Your task to perform on an android device: turn on translation in the chrome app Image 0: 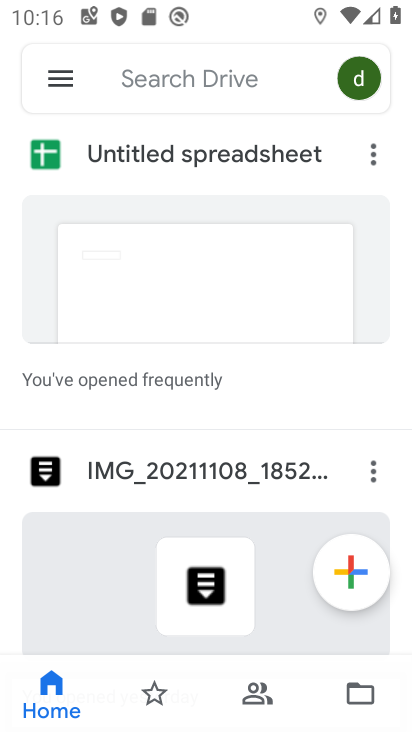
Step 0: press home button
Your task to perform on an android device: turn on translation in the chrome app Image 1: 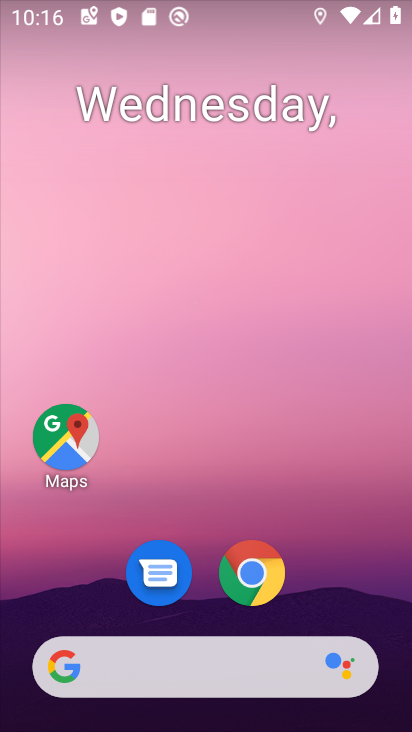
Step 1: click (73, 449)
Your task to perform on an android device: turn on translation in the chrome app Image 2: 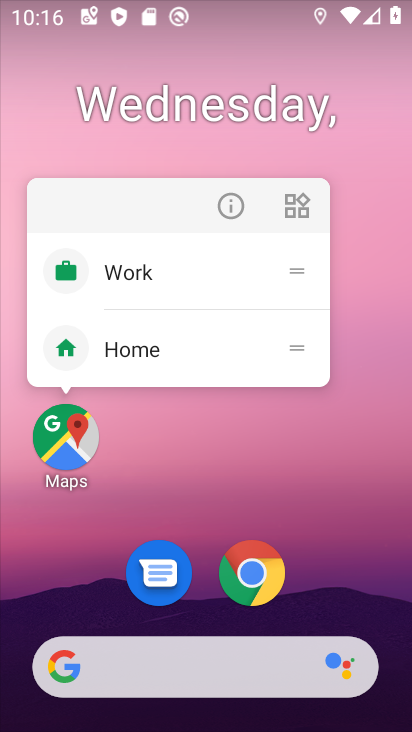
Step 2: click (242, 583)
Your task to perform on an android device: turn on translation in the chrome app Image 3: 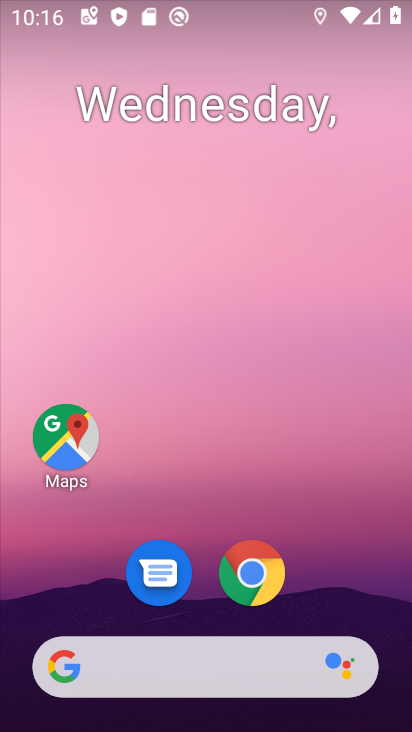
Step 3: click (248, 573)
Your task to perform on an android device: turn on translation in the chrome app Image 4: 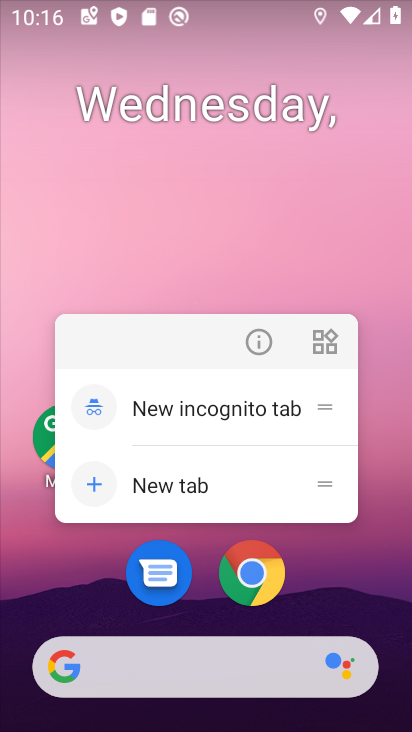
Step 4: click (253, 582)
Your task to perform on an android device: turn on translation in the chrome app Image 5: 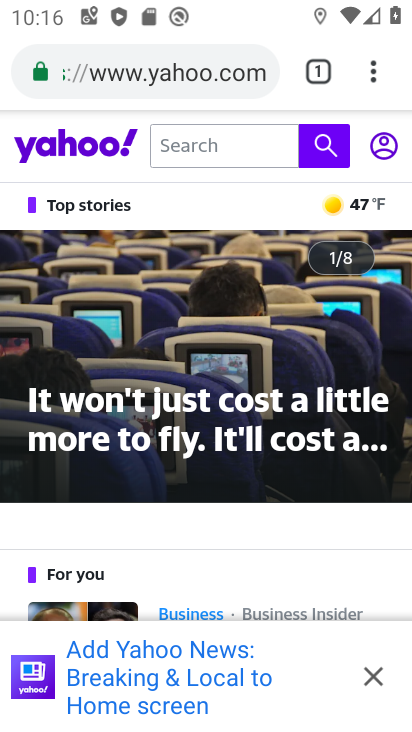
Step 5: click (373, 675)
Your task to perform on an android device: turn on translation in the chrome app Image 6: 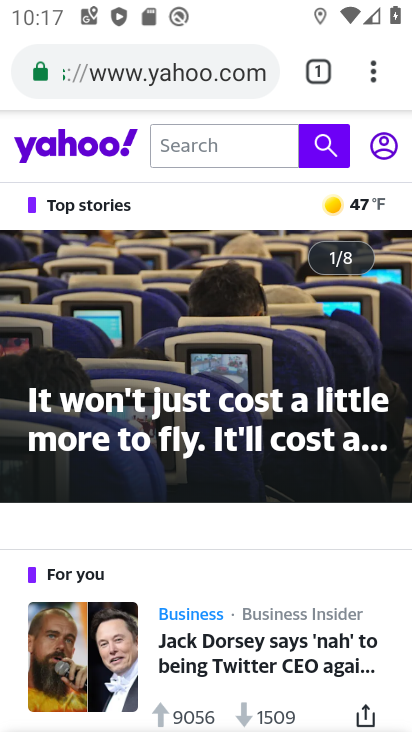
Step 6: click (372, 73)
Your task to perform on an android device: turn on translation in the chrome app Image 7: 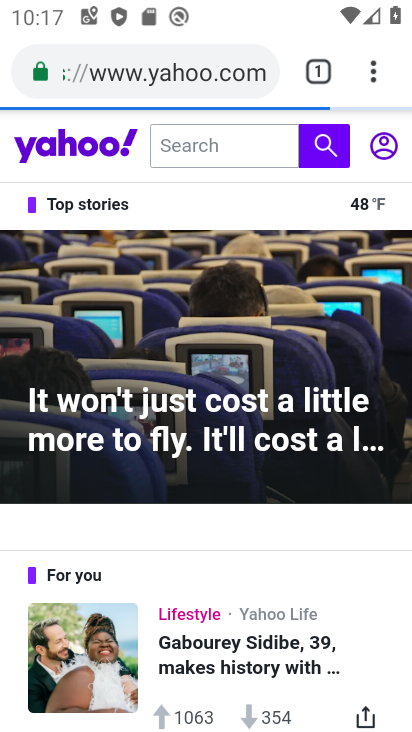
Step 7: click (371, 71)
Your task to perform on an android device: turn on translation in the chrome app Image 8: 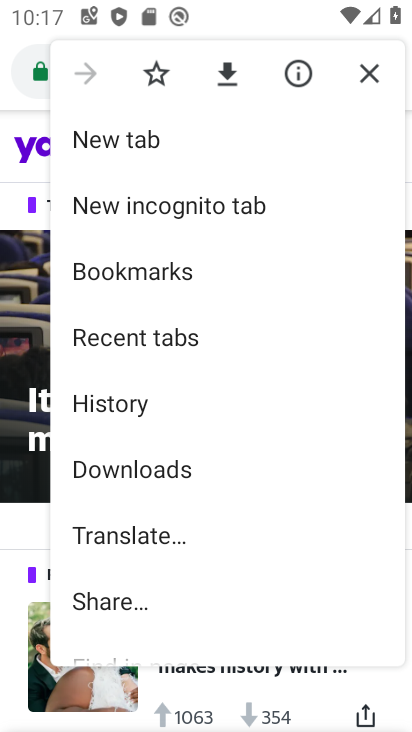
Step 8: drag from (188, 578) to (219, 154)
Your task to perform on an android device: turn on translation in the chrome app Image 9: 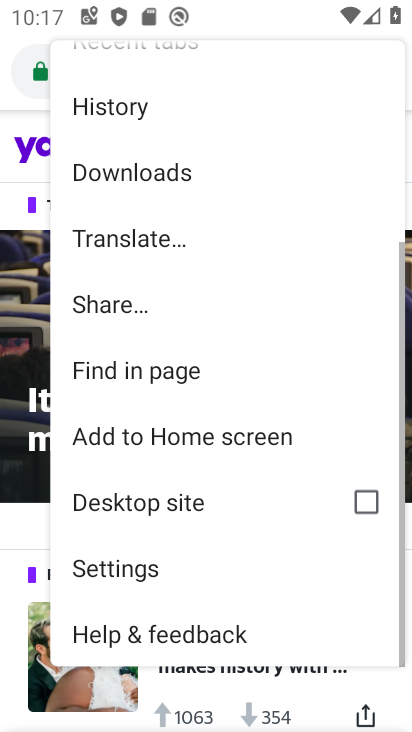
Step 9: click (125, 567)
Your task to perform on an android device: turn on translation in the chrome app Image 10: 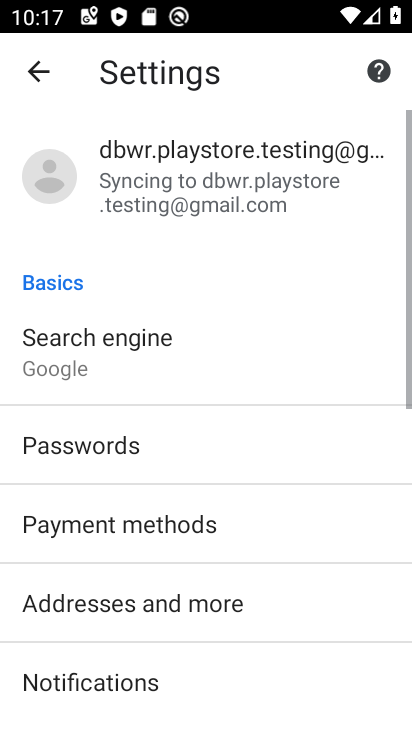
Step 10: drag from (170, 669) to (255, 231)
Your task to perform on an android device: turn on translation in the chrome app Image 11: 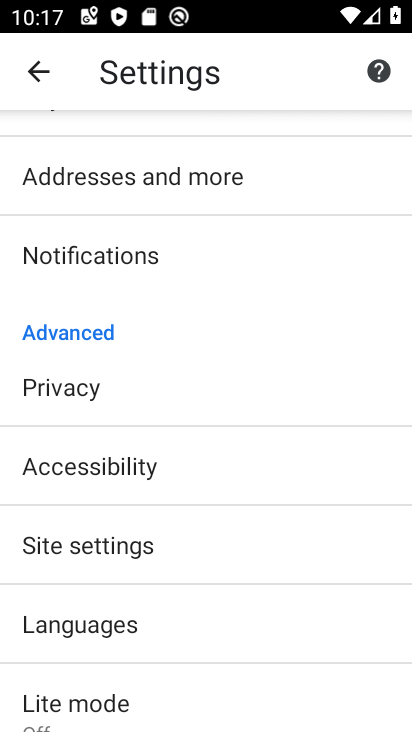
Step 11: click (93, 625)
Your task to perform on an android device: turn on translation in the chrome app Image 12: 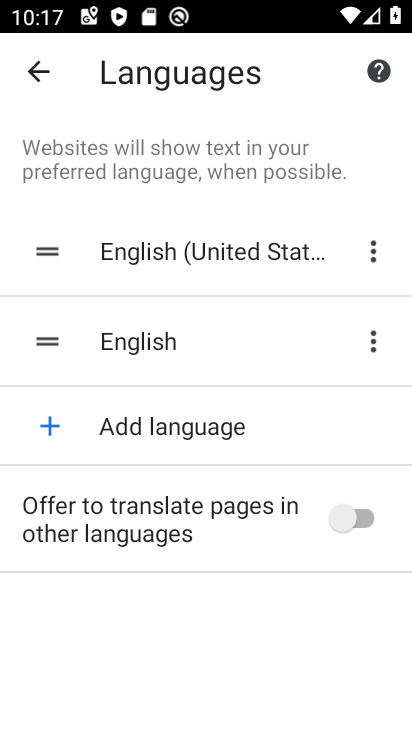
Step 12: click (366, 517)
Your task to perform on an android device: turn on translation in the chrome app Image 13: 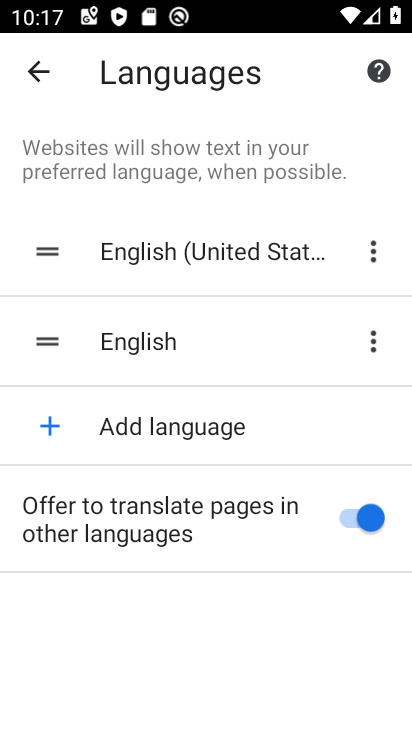
Step 13: task complete